Your task to perform on an android device: open wifi settings Image 0: 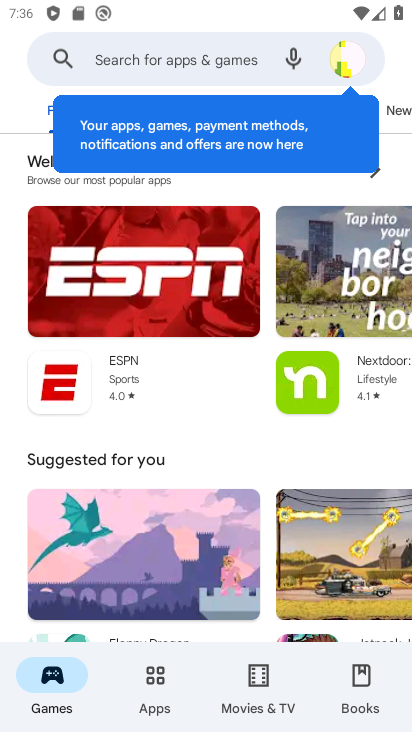
Step 0: press back button
Your task to perform on an android device: open wifi settings Image 1: 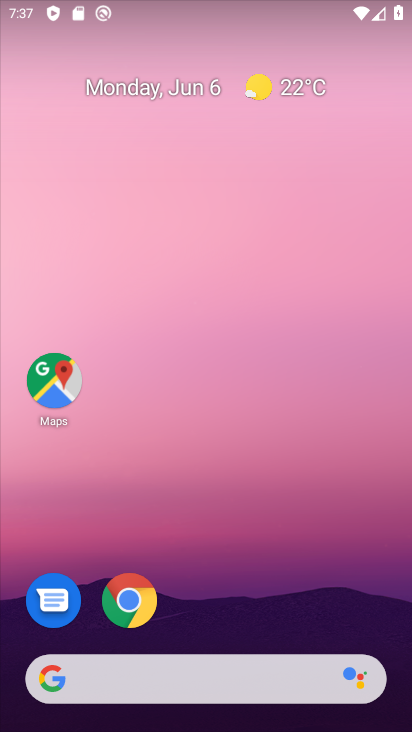
Step 1: drag from (267, 611) to (214, 51)
Your task to perform on an android device: open wifi settings Image 2: 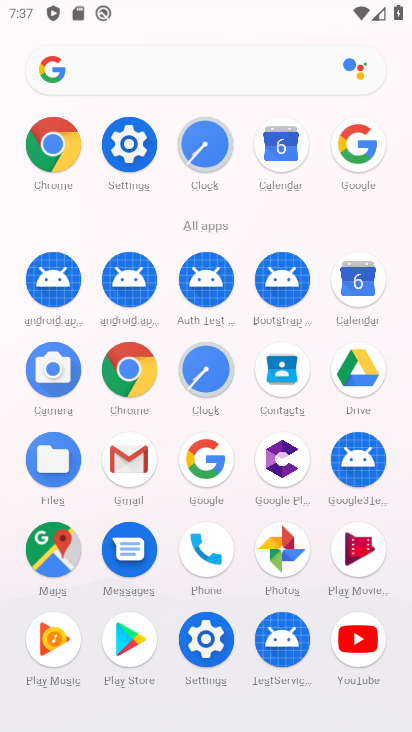
Step 2: click (128, 144)
Your task to perform on an android device: open wifi settings Image 3: 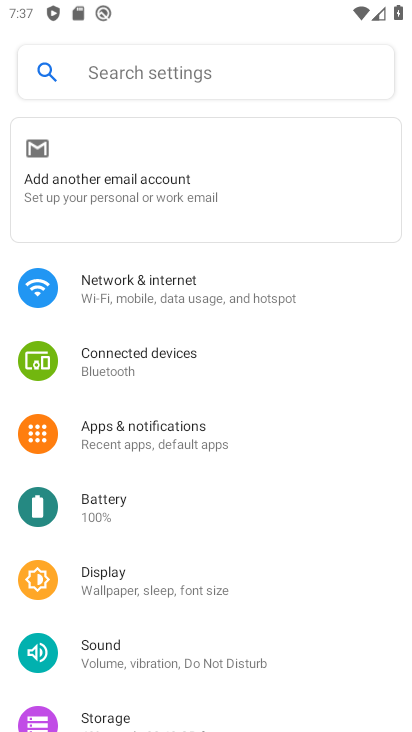
Step 3: click (163, 295)
Your task to perform on an android device: open wifi settings Image 4: 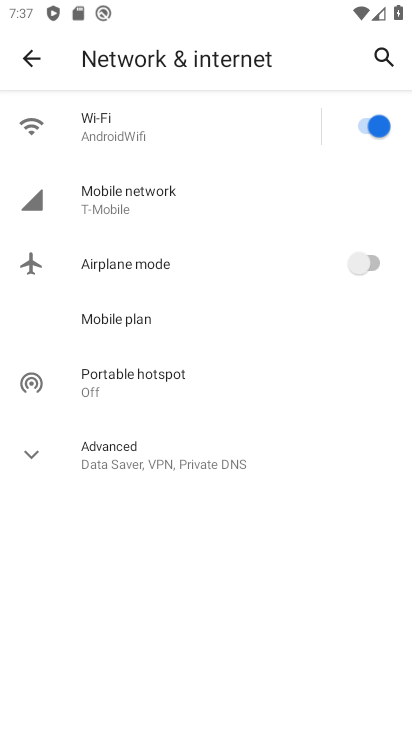
Step 4: click (104, 135)
Your task to perform on an android device: open wifi settings Image 5: 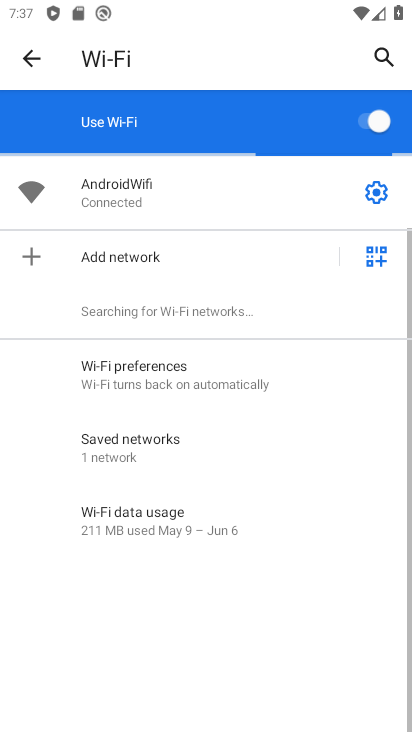
Step 5: click (375, 193)
Your task to perform on an android device: open wifi settings Image 6: 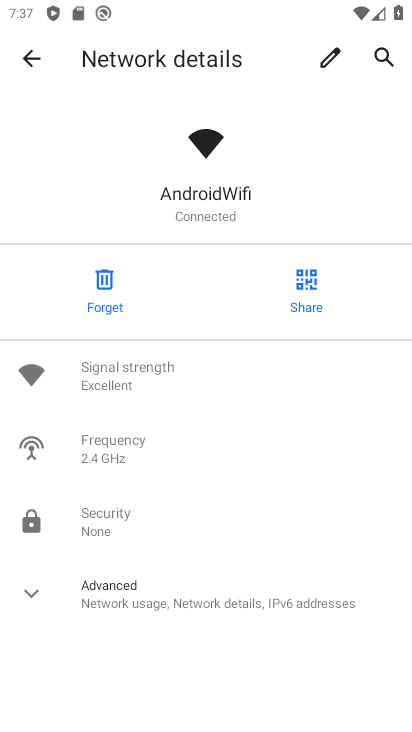
Step 6: task complete